Your task to perform on an android device: delete browsing data in the chrome app Image 0: 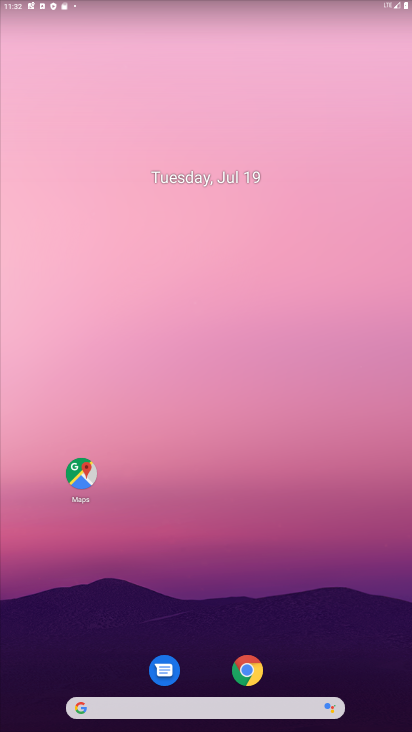
Step 0: click (234, 673)
Your task to perform on an android device: delete browsing data in the chrome app Image 1: 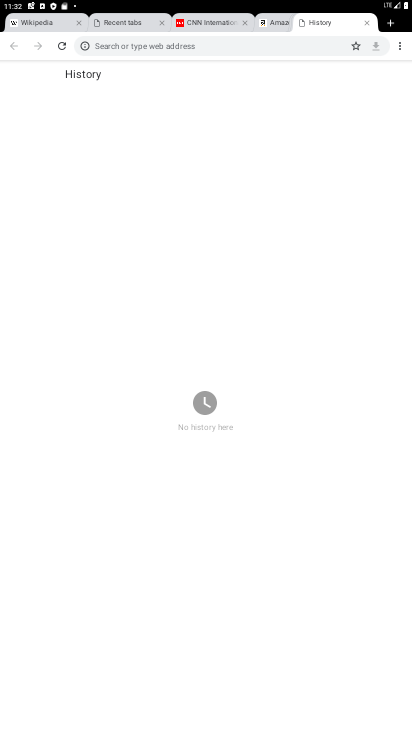
Step 1: click (401, 46)
Your task to perform on an android device: delete browsing data in the chrome app Image 2: 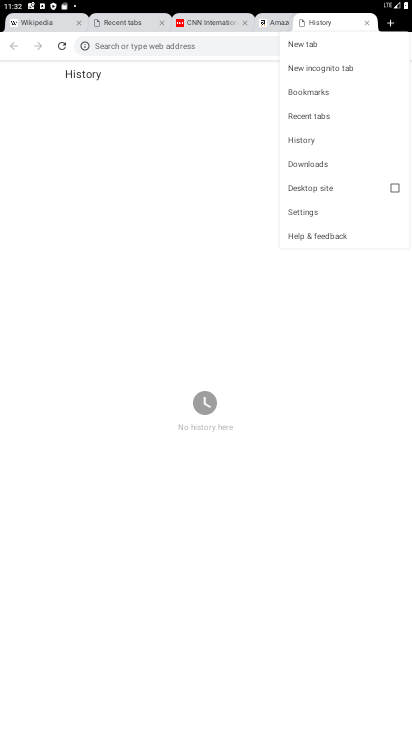
Step 2: click (295, 143)
Your task to perform on an android device: delete browsing data in the chrome app Image 3: 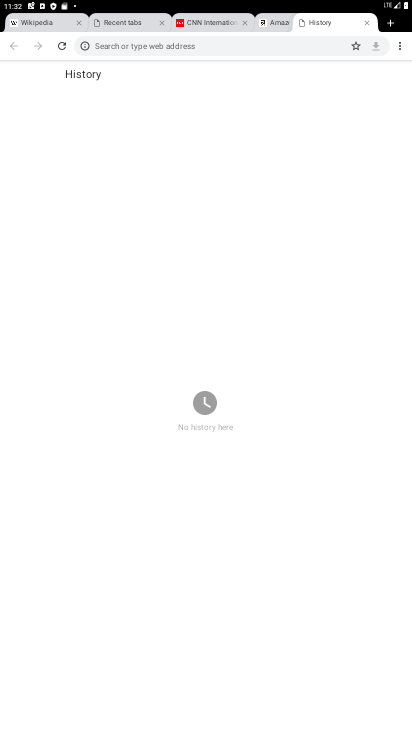
Step 3: task complete